Your task to perform on an android device: Go to sound settings Image 0: 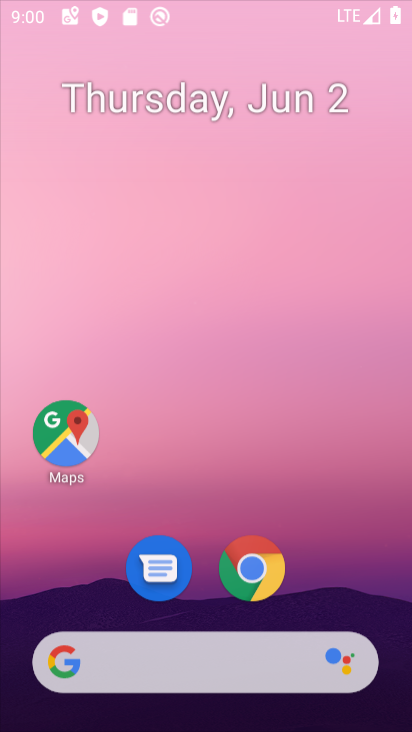
Step 0: press home button
Your task to perform on an android device: Go to sound settings Image 1: 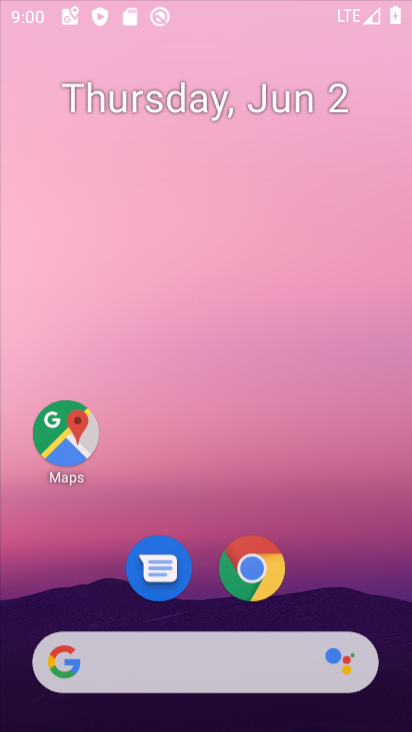
Step 1: click (385, 107)
Your task to perform on an android device: Go to sound settings Image 2: 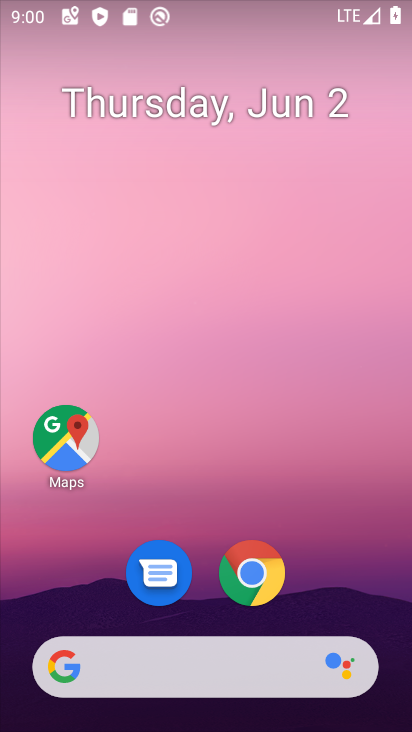
Step 2: drag from (380, 594) to (267, 0)
Your task to perform on an android device: Go to sound settings Image 3: 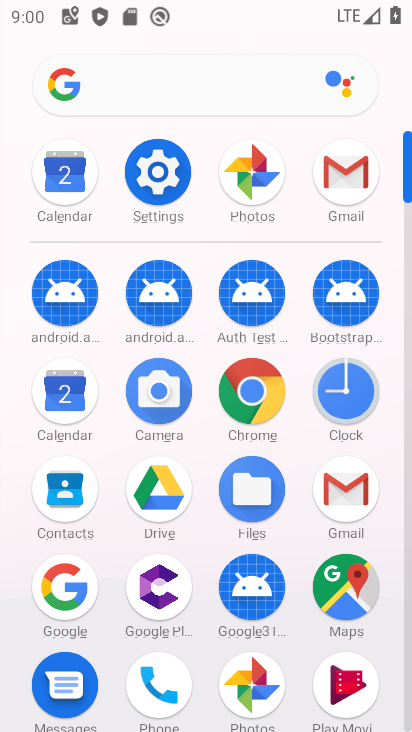
Step 3: click (183, 209)
Your task to perform on an android device: Go to sound settings Image 4: 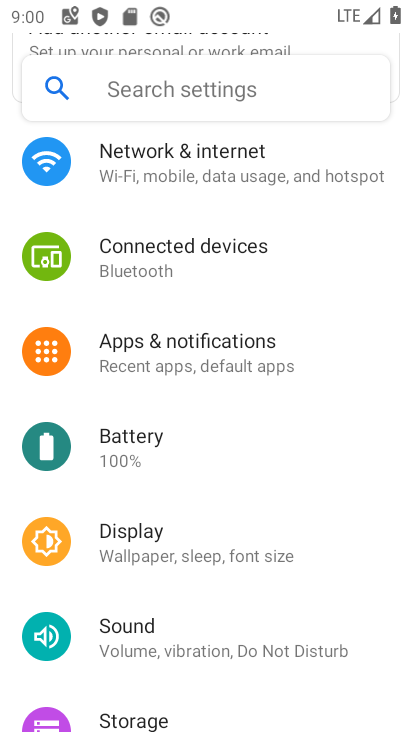
Step 4: click (120, 625)
Your task to perform on an android device: Go to sound settings Image 5: 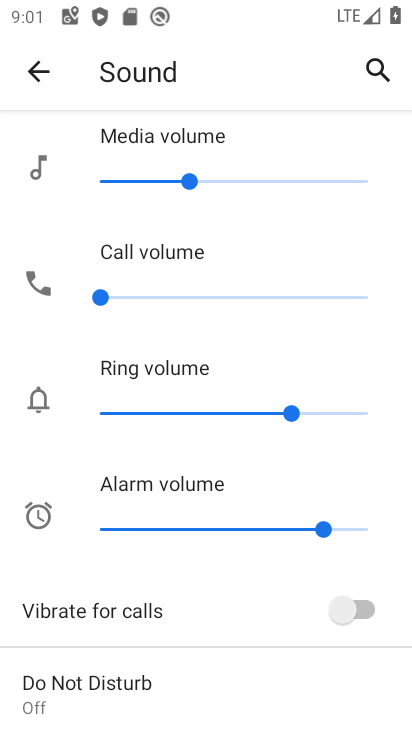
Step 5: task complete